Your task to perform on an android device: Go to sound settings Image 0: 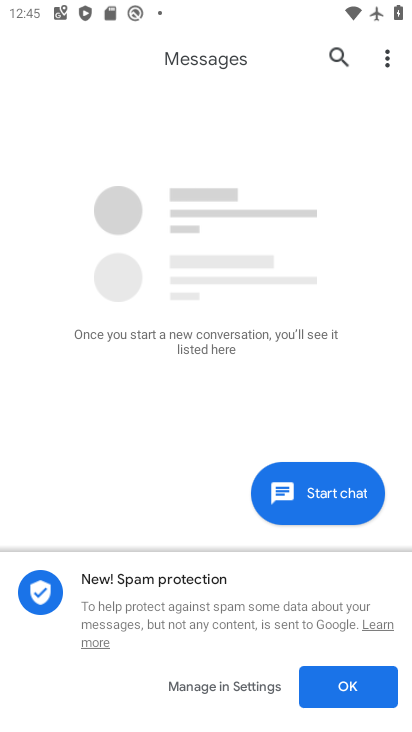
Step 0: press home button
Your task to perform on an android device: Go to sound settings Image 1: 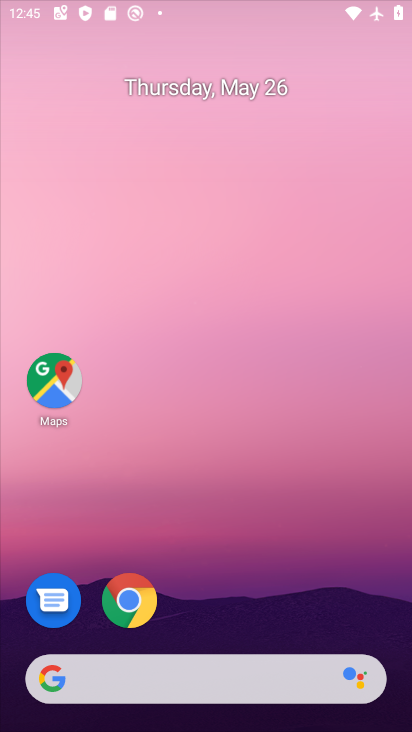
Step 1: drag from (204, 531) to (243, 138)
Your task to perform on an android device: Go to sound settings Image 2: 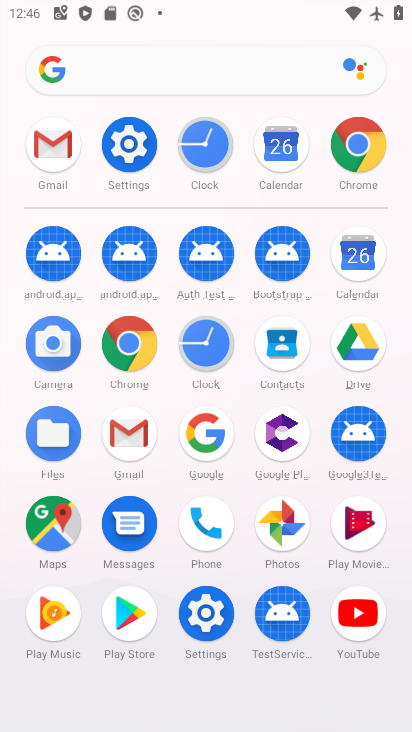
Step 2: click (118, 159)
Your task to perform on an android device: Go to sound settings Image 3: 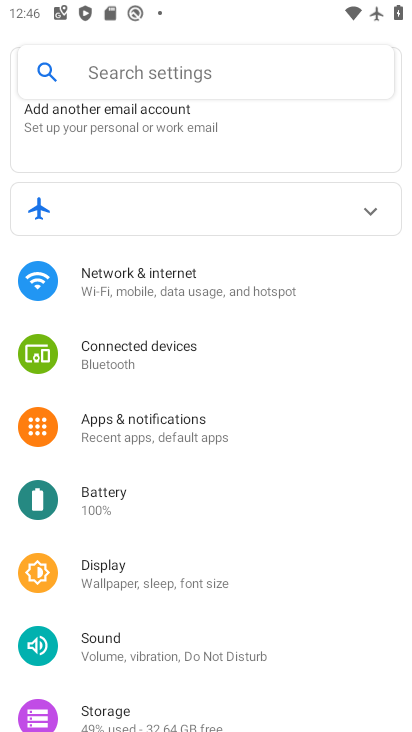
Step 3: click (136, 647)
Your task to perform on an android device: Go to sound settings Image 4: 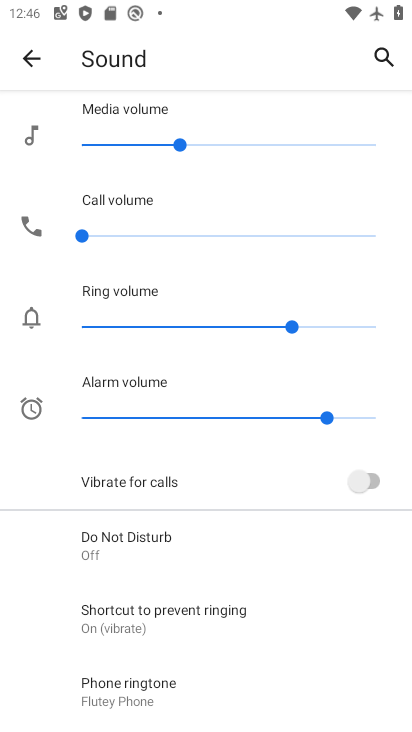
Step 4: task complete